Your task to perform on an android device: open the mobile data screen to see how much data has been used Image 0: 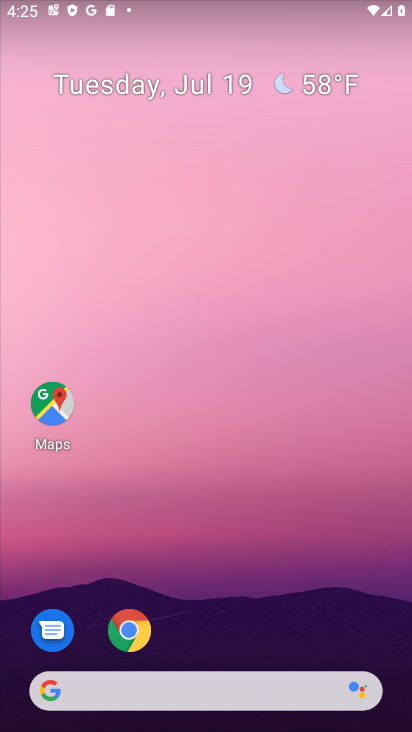
Step 0: press home button
Your task to perform on an android device: open the mobile data screen to see how much data has been used Image 1: 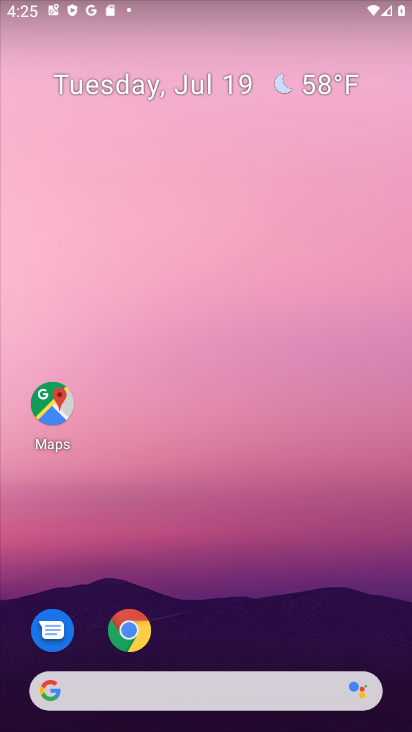
Step 1: drag from (244, 528) to (196, 20)
Your task to perform on an android device: open the mobile data screen to see how much data has been used Image 2: 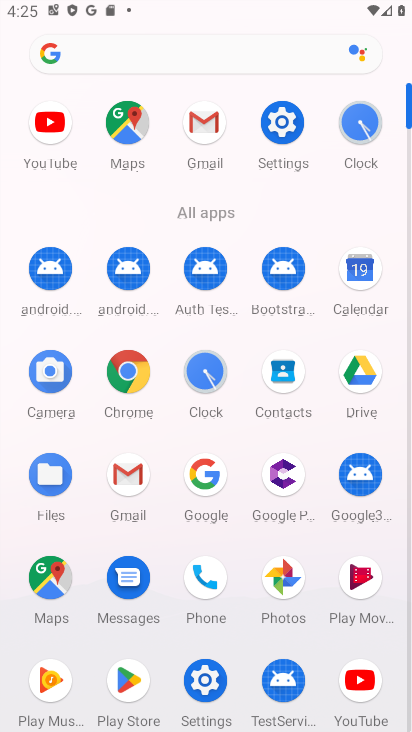
Step 2: click (286, 123)
Your task to perform on an android device: open the mobile data screen to see how much data has been used Image 3: 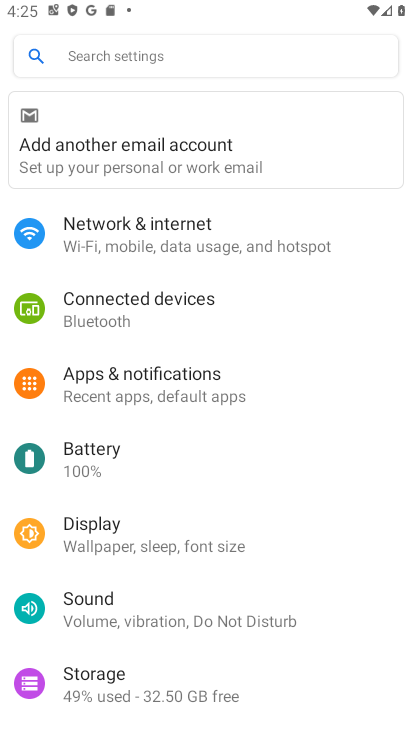
Step 3: click (123, 246)
Your task to perform on an android device: open the mobile data screen to see how much data has been used Image 4: 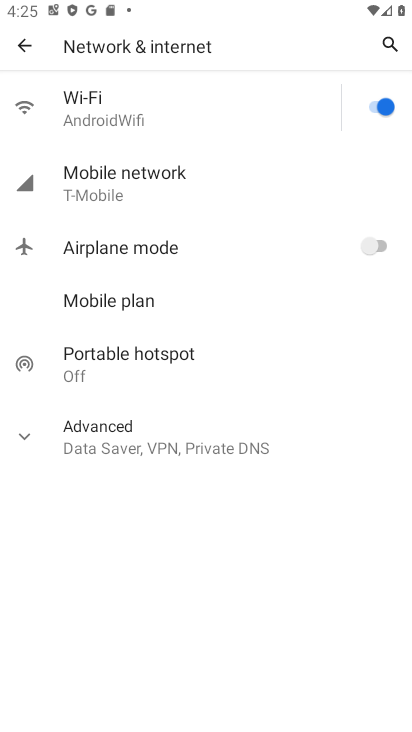
Step 4: click (125, 190)
Your task to perform on an android device: open the mobile data screen to see how much data has been used Image 5: 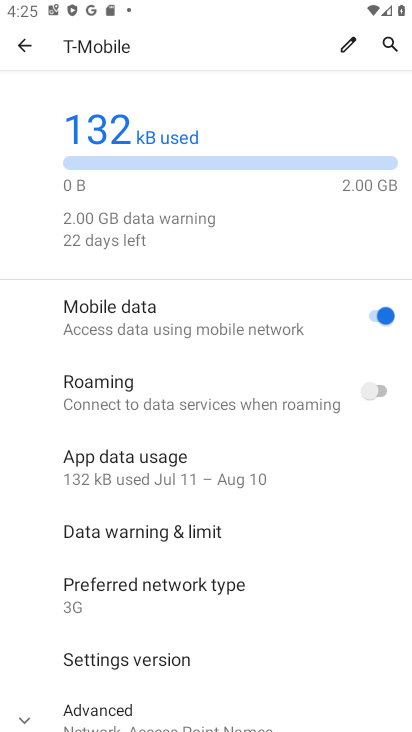
Step 5: task complete